Your task to perform on an android device: How do I get to the nearest Home Depot? Image 0: 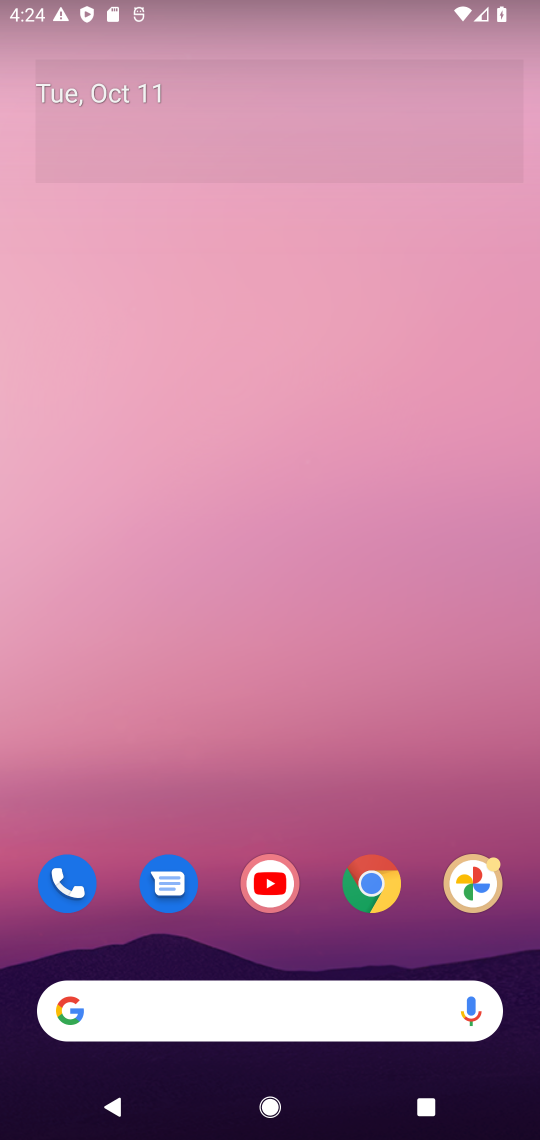
Step 0: press home button
Your task to perform on an android device: How do I get to the nearest Home Depot? Image 1: 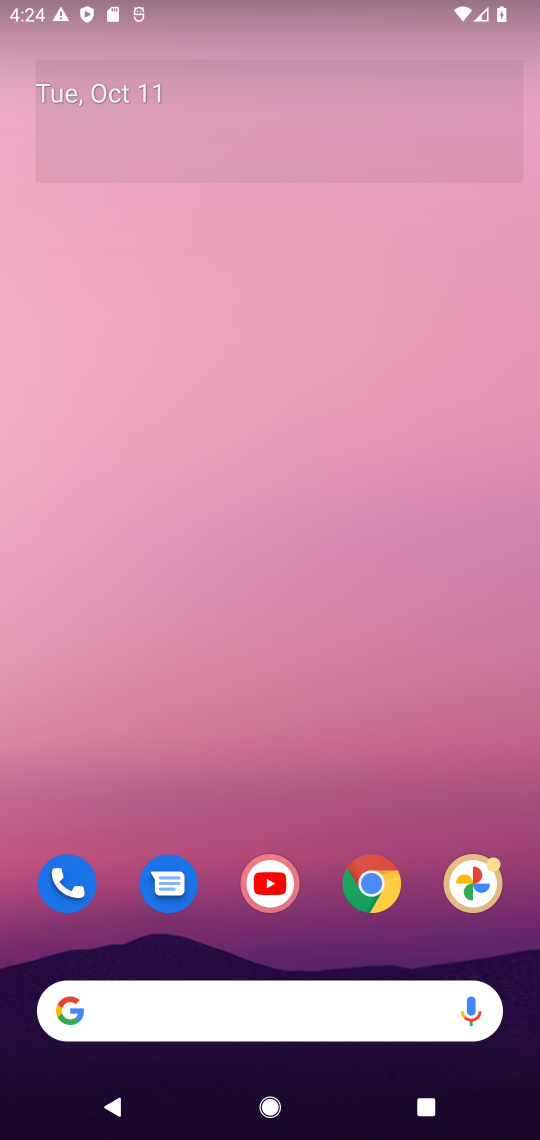
Step 1: drag from (322, 954) to (291, 21)
Your task to perform on an android device: How do I get to the nearest Home Depot? Image 2: 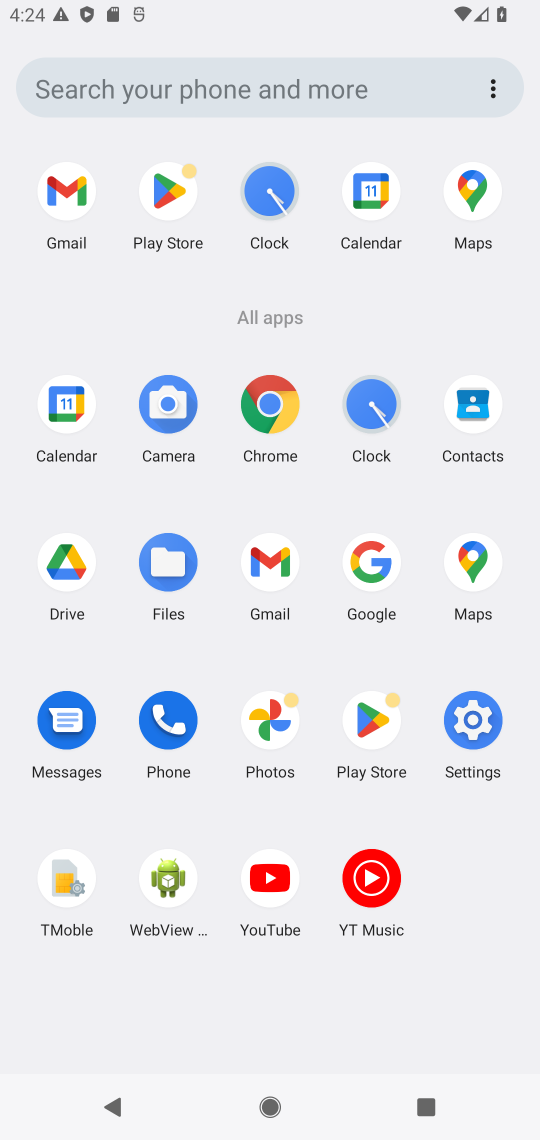
Step 2: click (255, 410)
Your task to perform on an android device: How do I get to the nearest Home Depot? Image 3: 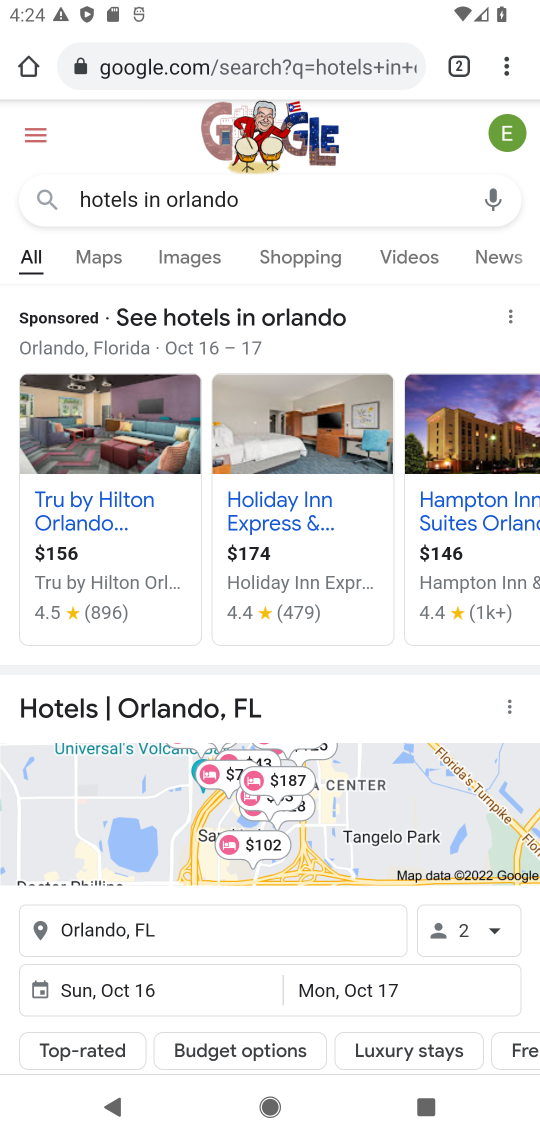
Step 3: click (244, 79)
Your task to perform on an android device: How do I get to the nearest Home Depot? Image 4: 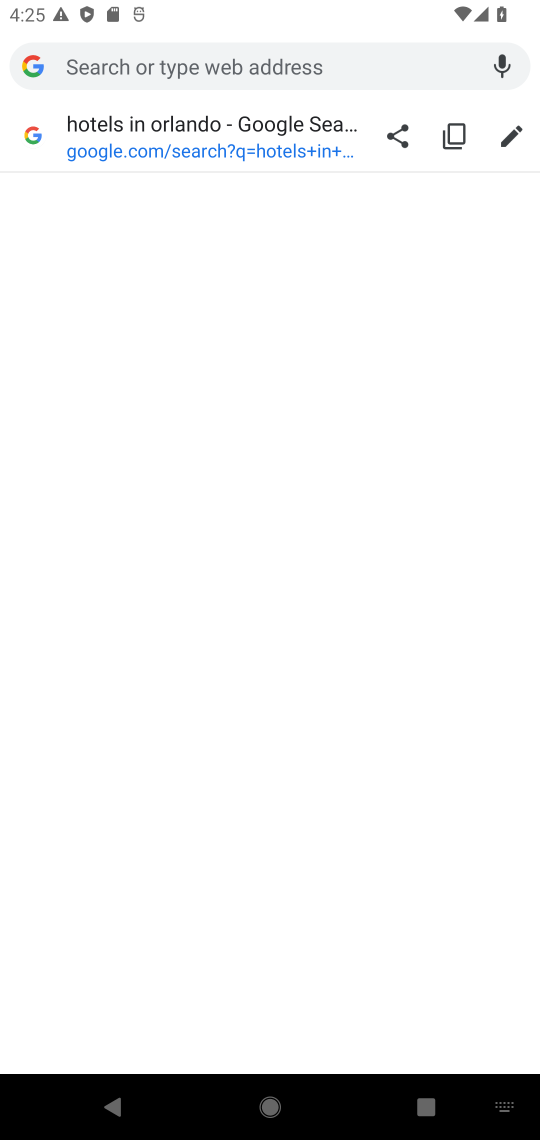
Step 4: type "How do I get the nearest Home Depot?"
Your task to perform on an android device: How do I get to the nearest Home Depot? Image 5: 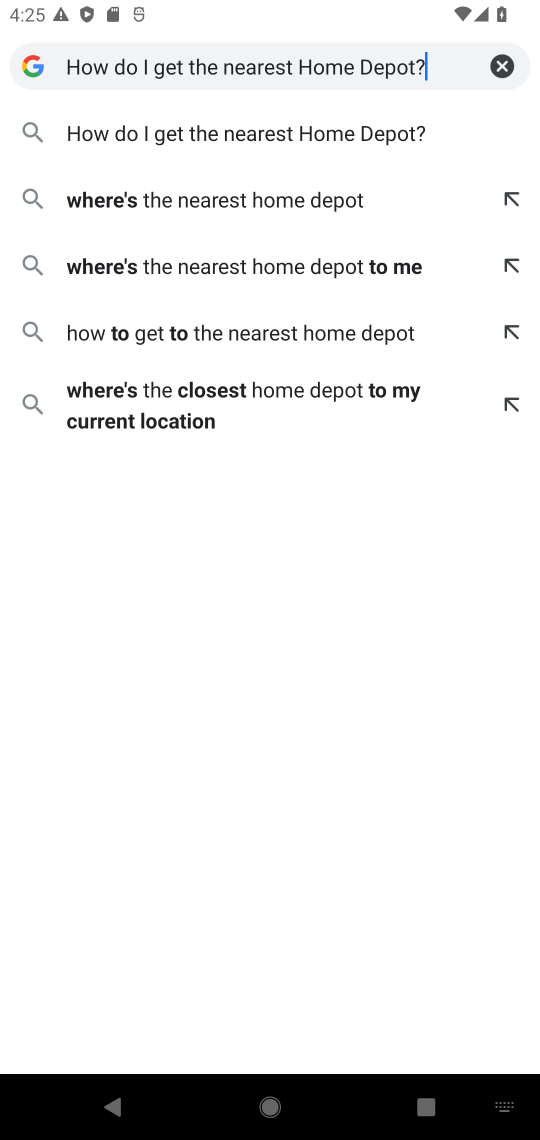
Step 5: press enter
Your task to perform on an android device: How do I get to the nearest Home Depot? Image 6: 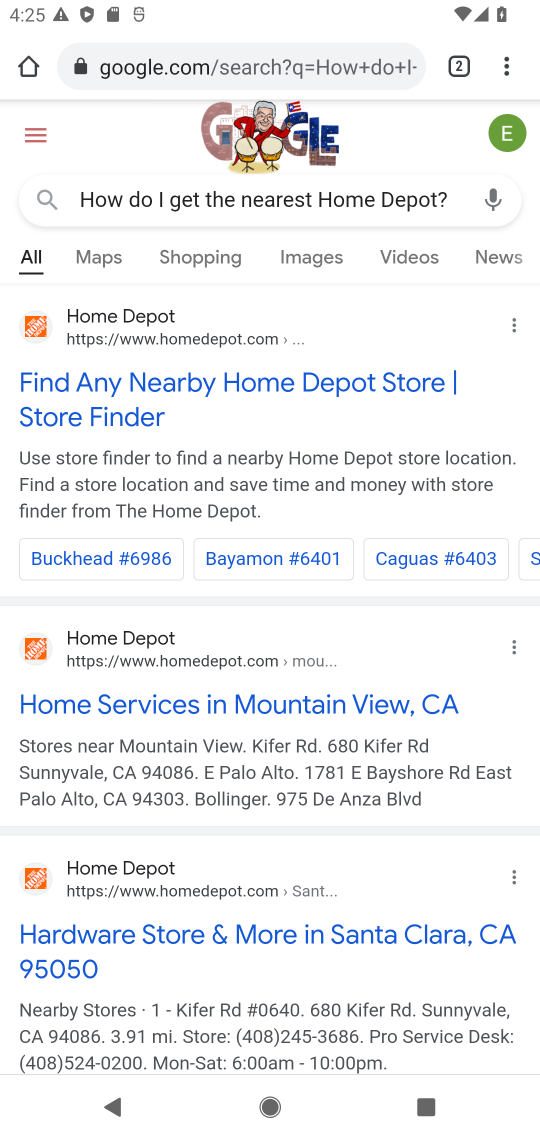
Step 6: click (158, 395)
Your task to perform on an android device: How do I get to the nearest Home Depot? Image 7: 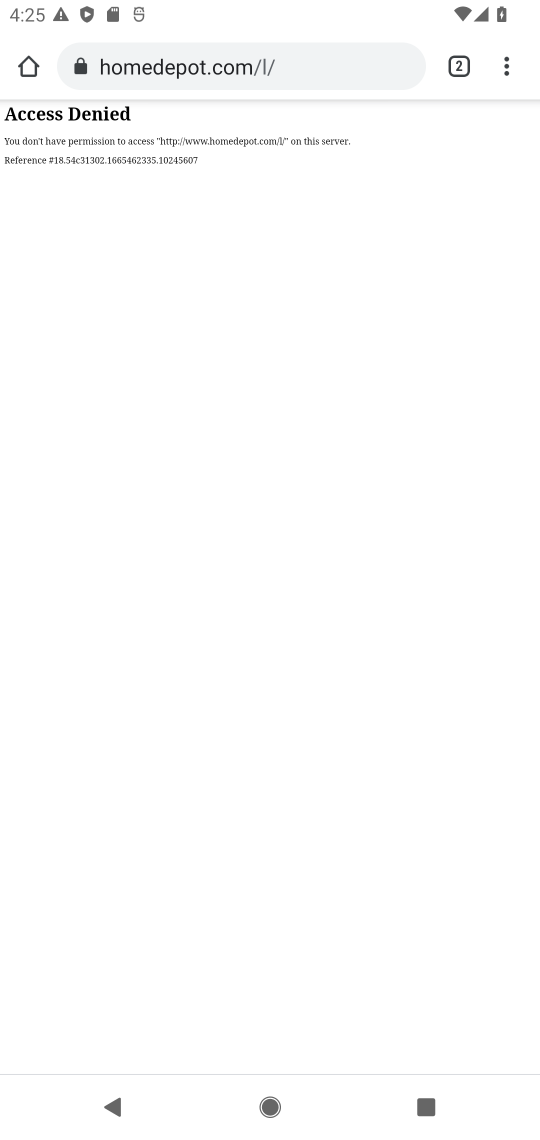
Step 7: task complete